Your task to perform on an android device: Open calendar and show me the first week of next month Image 0: 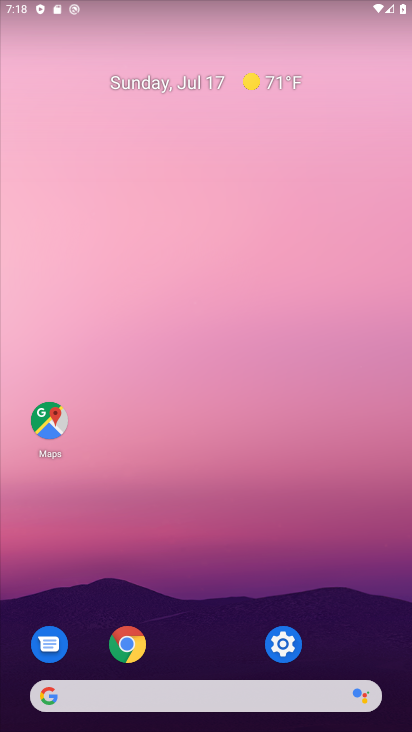
Step 0: press home button
Your task to perform on an android device: Open calendar and show me the first week of next month Image 1: 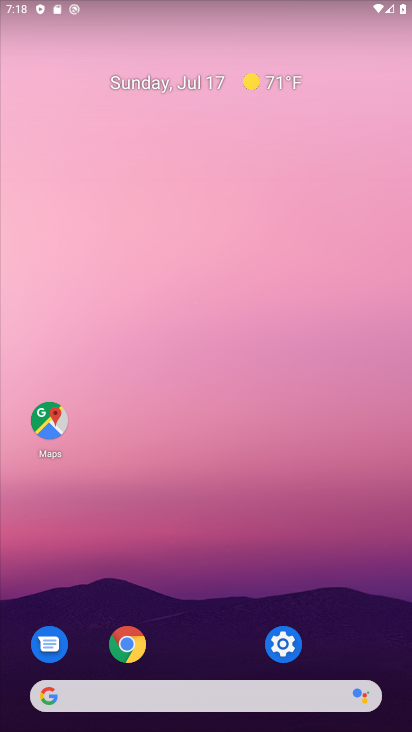
Step 1: drag from (208, 710) to (283, 84)
Your task to perform on an android device: Open calendar and show me the first week of next month Image 2: 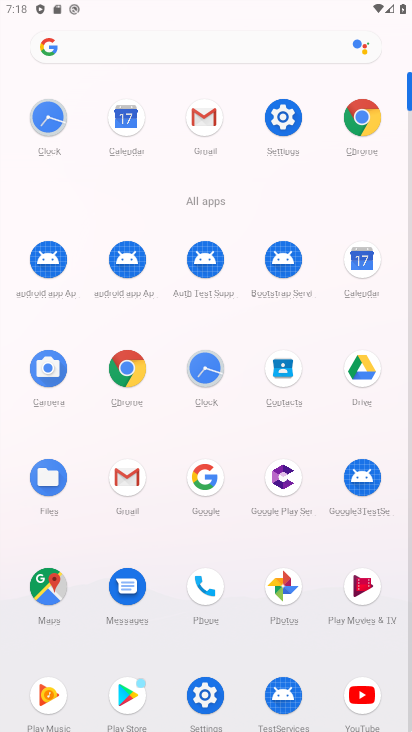
Step 2: click (350, 264)
Your task to perform on an android device: Open calendar and show me the first week of next month Image 3: 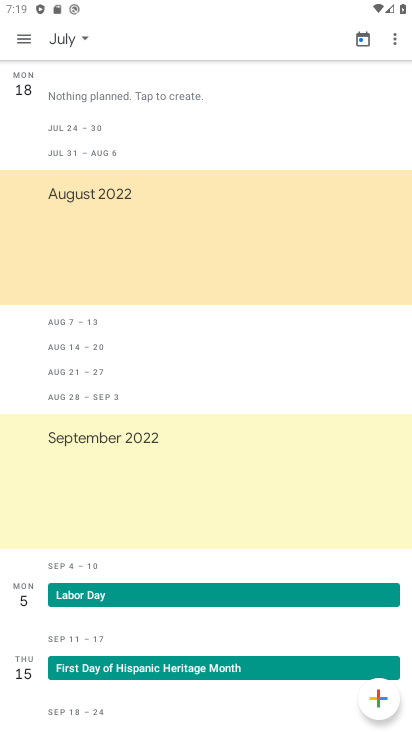
Step 3: click (20, 48)
Your task to perform on an android device: Open calendar and show me the first week of next month Image 4: 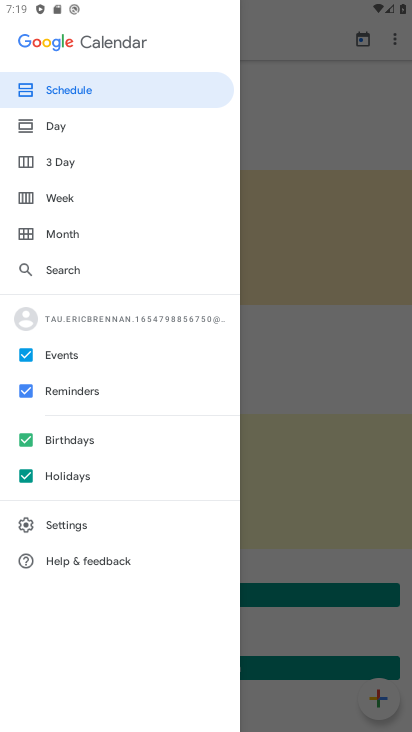
Step 4: click (81, 229)
Your task to perform on an android device: Open calendar and show me the first week of next month Image 5: 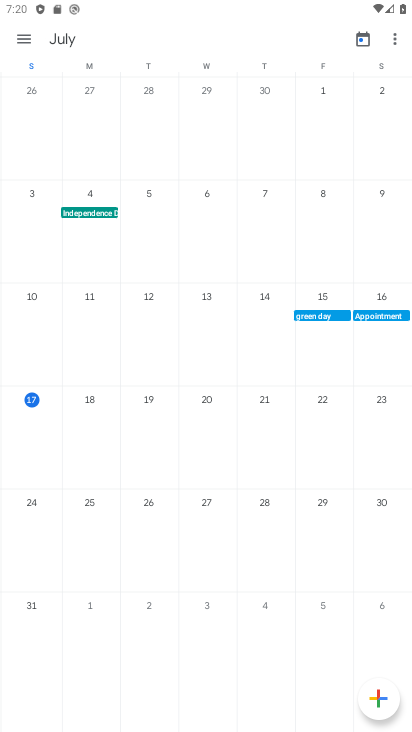
Step 5: drag from (379, 389) to (8, 446)
Your task to perform on an android device: Open calendar and show me the first week of next month Image 6: 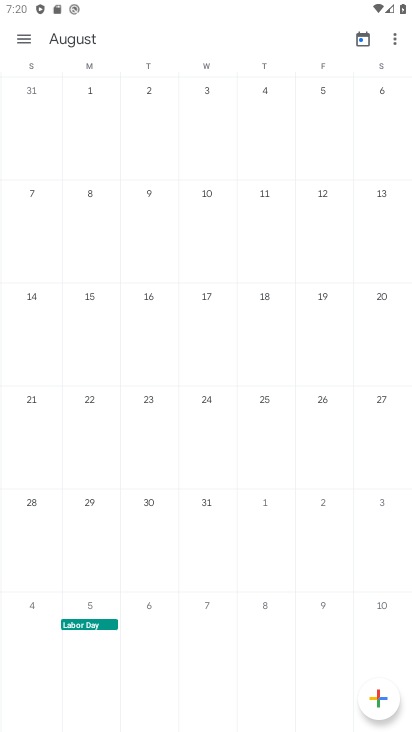
Step 6: click (99, 108)
Your task to perform on an android device: Open calendar and show me the first week of next month Image 7: 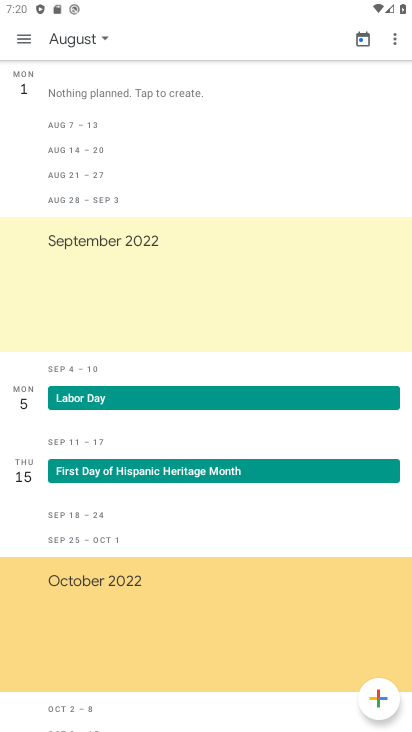
Step 7: task complete